Your task to perform on an android device: open the mobile data screen to see how much data has been used Image 0: 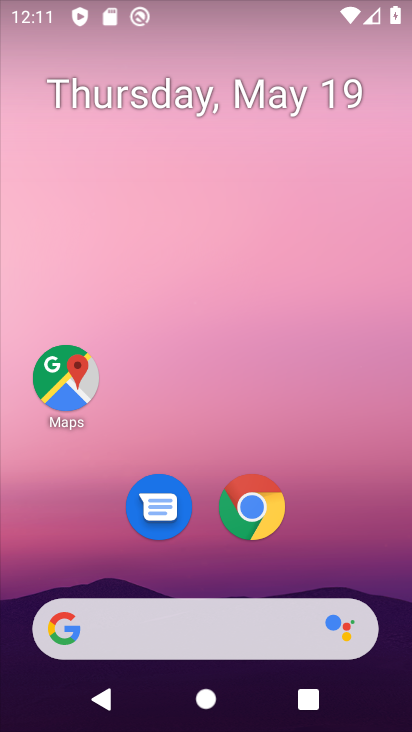
Step 0: drag from (210, 562) to (220, 64)
Your task to perform on an android device: open the mobile data screen to see how much data has been used Image 1: 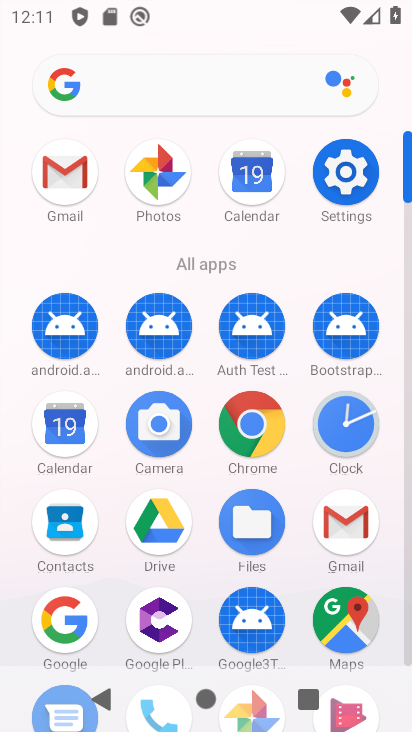
Step 1: click (352, 207)
Your task to perform on an android device: open the mobile data screen to see how much data has been used Image 2: 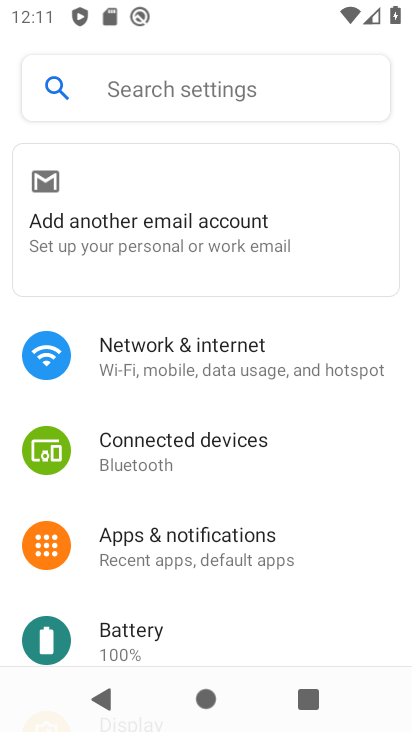
Step 2: drag from (208, 582) to (243, 381)
Your task to perform on an android device: open the mobile data screen to see how much data has been used Image 3: 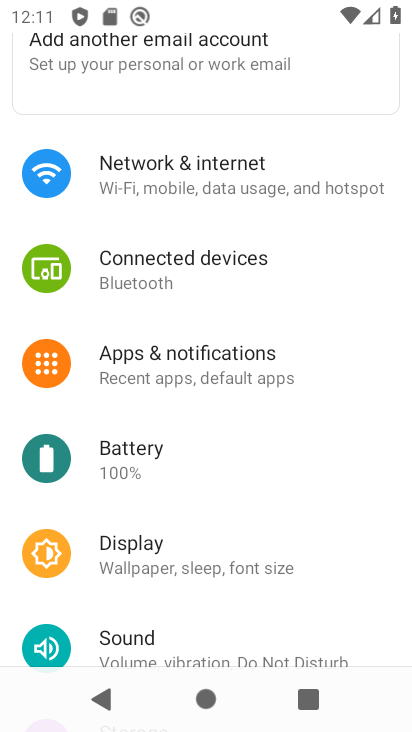
Step 3: click (190, 190)
Your task to perform on an android device: open the mobile data screen to see how much data has been used Image 4: 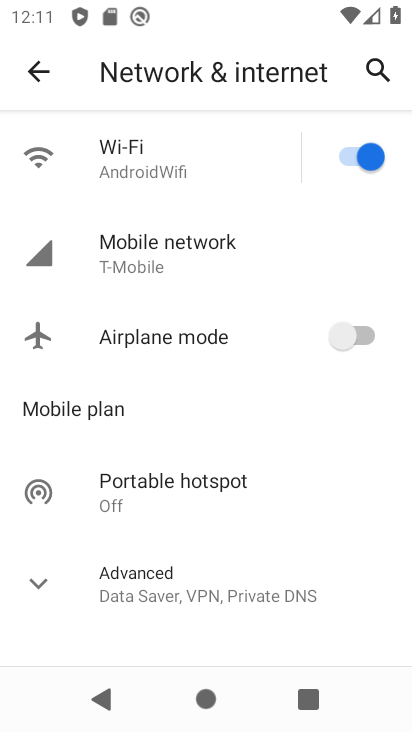
Step 4: click (166, 254)
Your task to perform on an android device: open the mobile data screen to see how much data has been used Image 5: 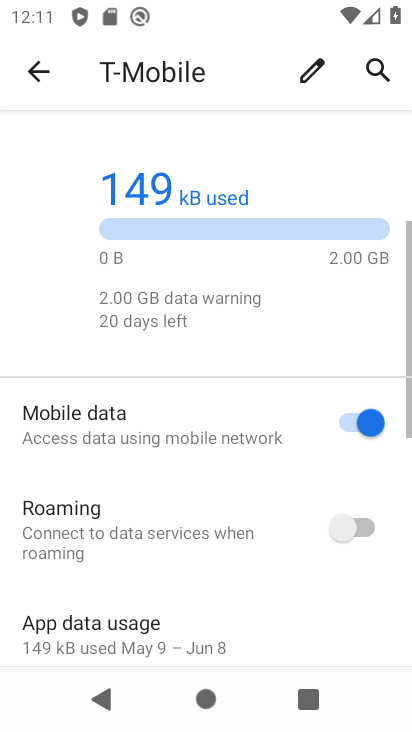
Step 5: drag from (198, 528) to (224, 344)
Your task to perform on an android device: open the mobile data screen to see how much data has been used Image 6: 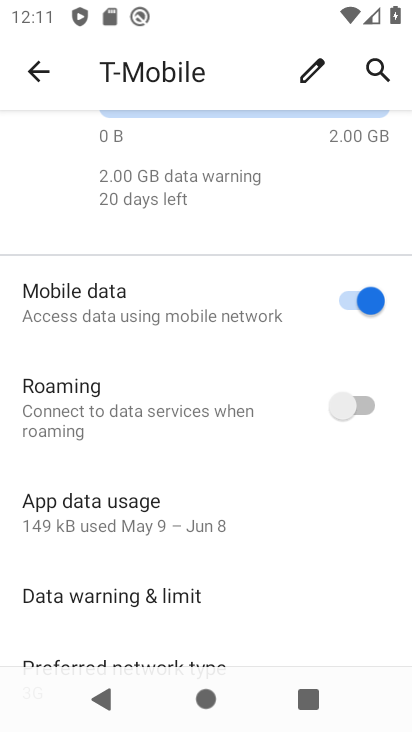
Step 6: click (116, 521)
Your task to perform on an android device: open the mobile data screen to see how much data has been used Image 7: 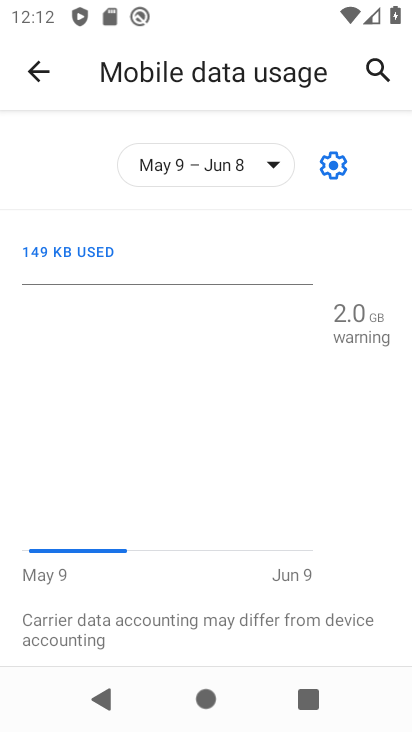
Step 7: task complete